Your task to perform on an android device: Go to display settings Image 0: 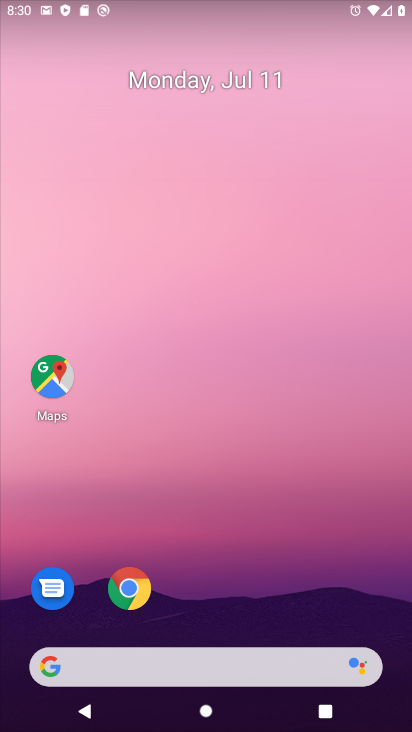
Step 0: drag from (188, 673) to (384, 96)
Your task to perform on an android device: Go to display settings Image 1: 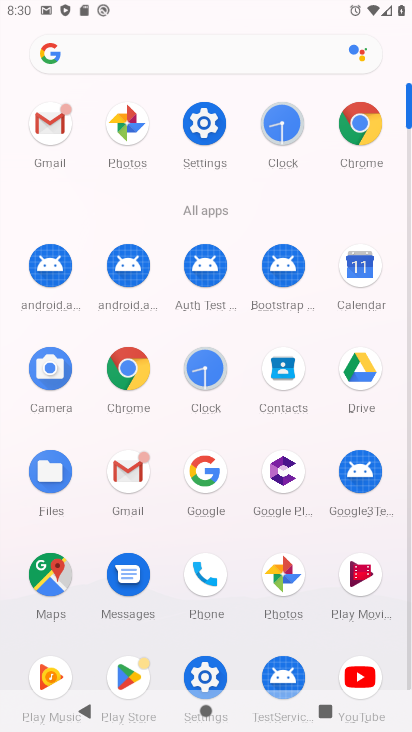
Step 1: click (210, 131)
Your task to perform on an android device: Go to display settings Image 2: 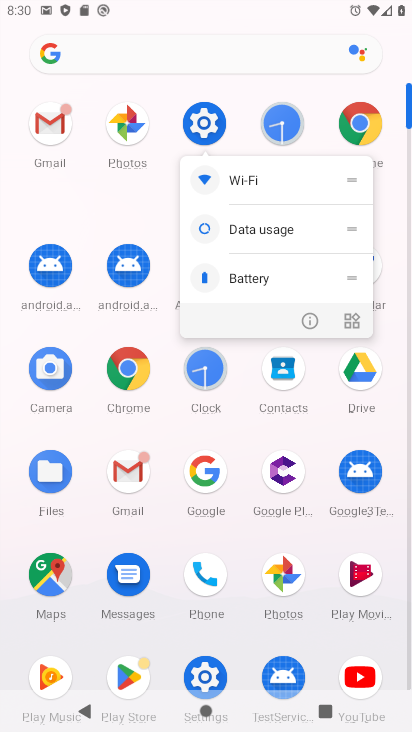
Step 2: click (201, 125)
Your task to perform on an android device: Go to display settings Image 3: 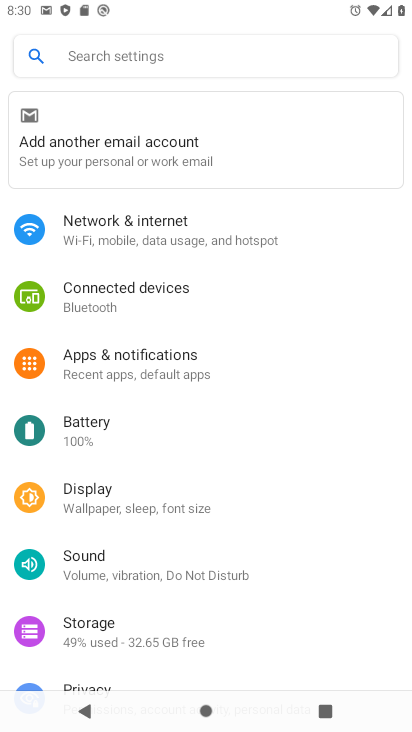
Step 3: click (128, 508)
Your task to perform on an android device: Go to display settings Image 4: 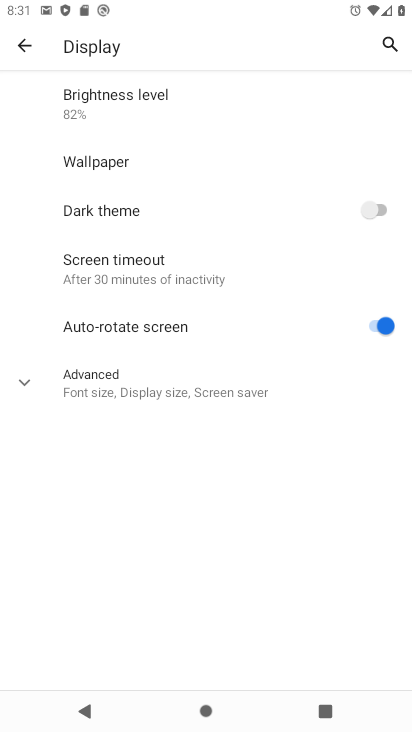
Step 4: task complete